Your task to perform on an android device: add a contact Image 0: 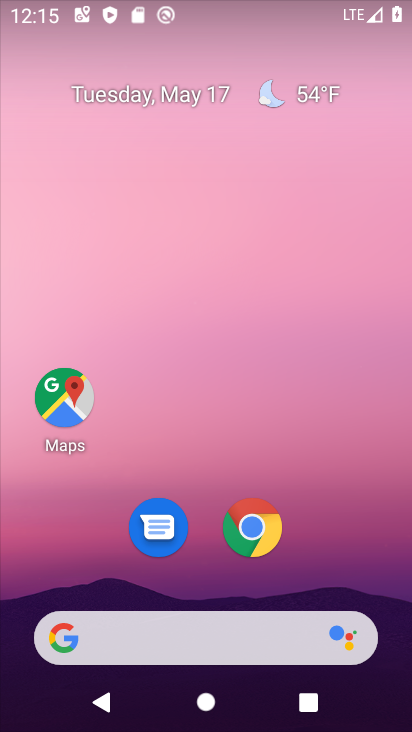
Step 0: press home button
Your task to perform on an android device: add a contact Image 1: 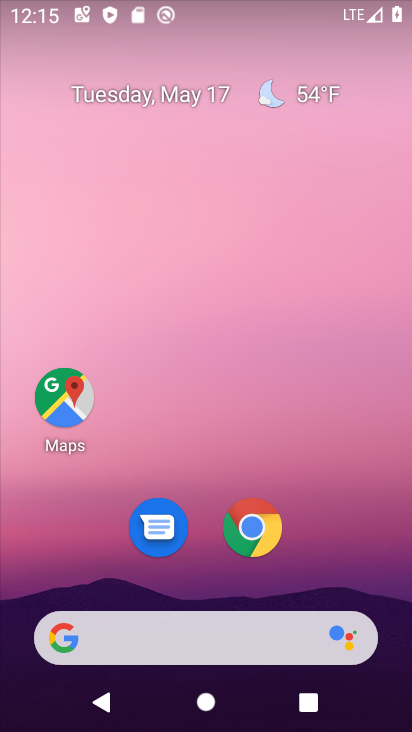
Step 1: drag from (266, 681) to (341, 192)
Your task to perform on an android device: add a contact Image 2: 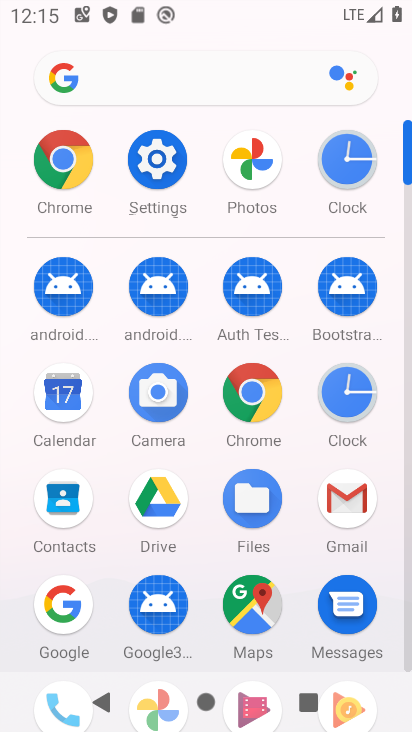
Step 2: drag from (107, 569) to (159, 394)
Your task to perform on an android device: add a contact Image 3: 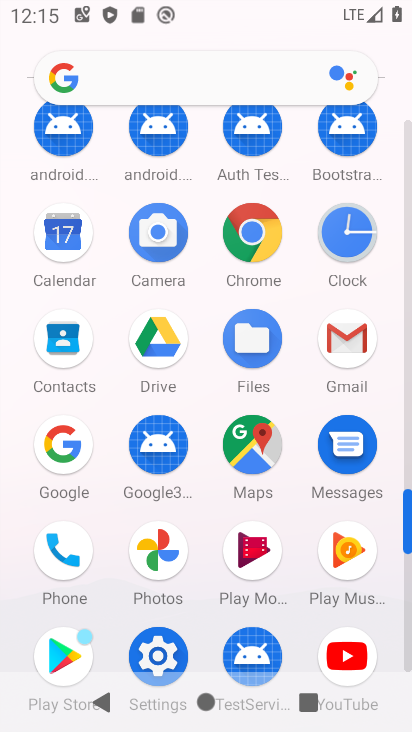
Step 3: click (58, 568)
Your task to perform on an android device: add a contact Image 4: 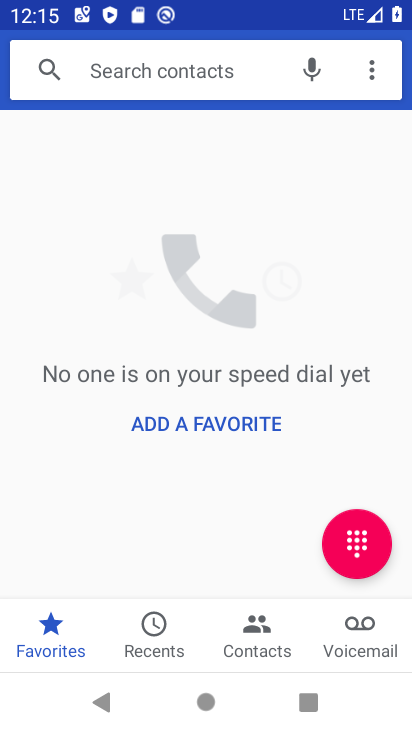
Step 4: click (261, 643)
Your task to perform on an android device: add a contact Image 5: 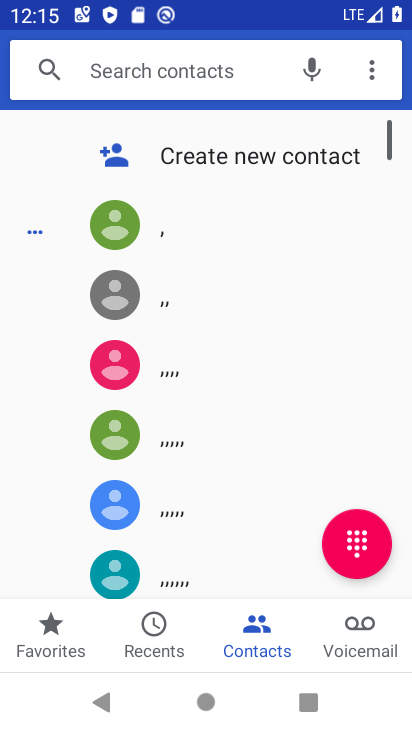
Step 5: click (242, 159)
Your task to perform on an android device: add a contact Image 6: 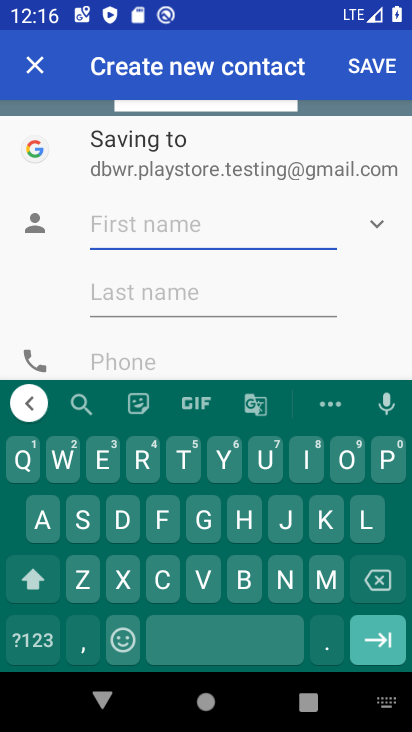
Step 6: click (209, 467)
Your task to perform on an android device: add a contact Image 7: 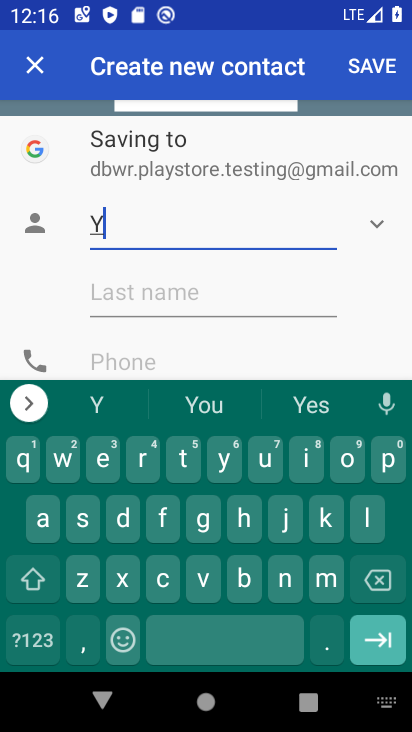
Step 7: click (210, 530)
Your task to perform on an android device: add a contact Image 8: 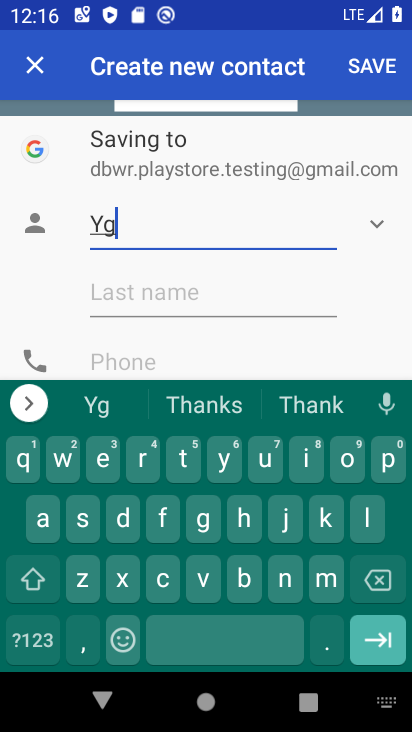
Step 8: click (255, 516)
Your task to perform on an android device: add a contact Image 9: 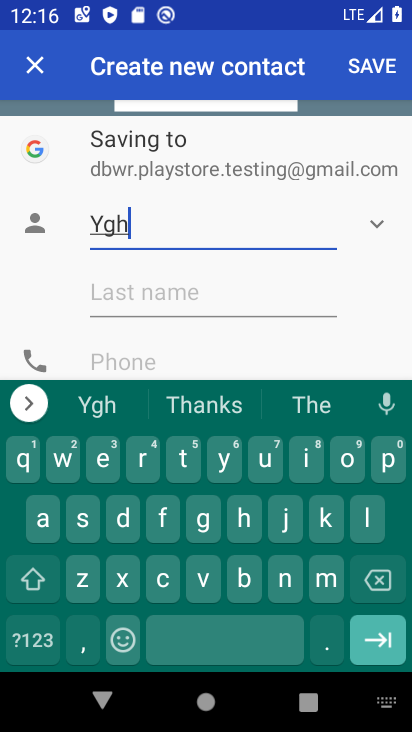
Step 9: click (159, 346)
Your task to perform on an android device: add a contact Image 10: 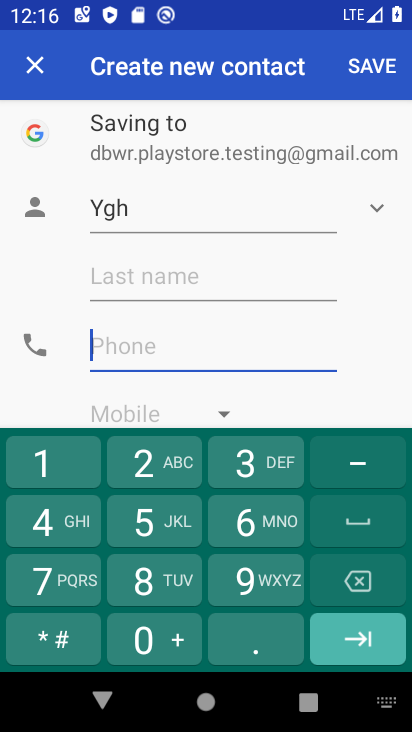
Step 10: click (168, 500)
Your task to perform on an android device: add a contact Image 11: 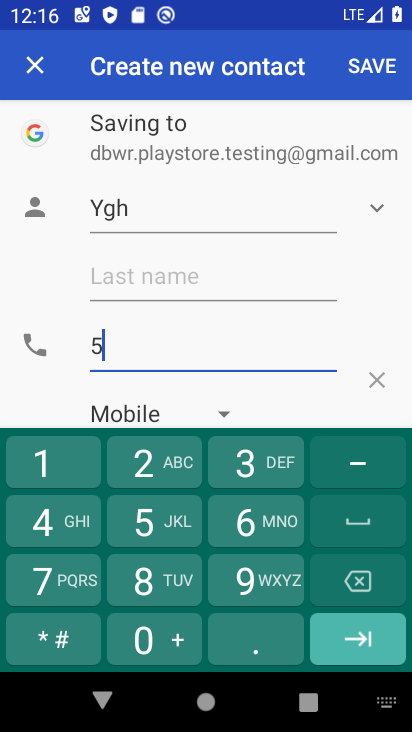
Step 11: click (111, 564)
Your task to perform on an android device: add a contact Image 12: 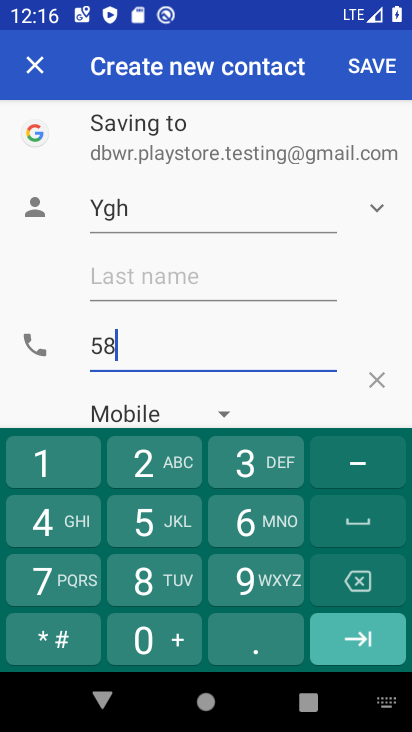
Step 12: click (69, 594)
Your task to perform on an android device: add a contact Image 13: 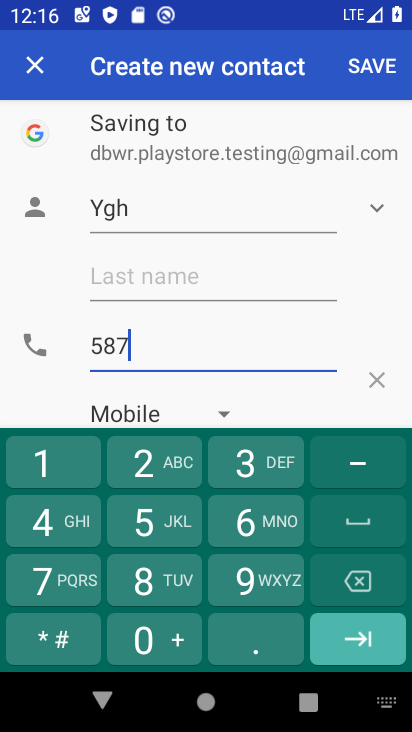
Step 13: click (179, 564)
Your task to perform on an android device: add a contact Image 14: 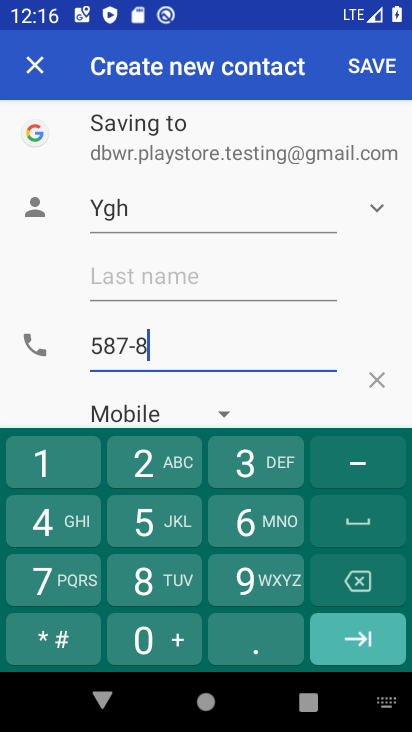
Step 14: click (239, 534)
Your task to perform on an android device: add a contact Image 15: 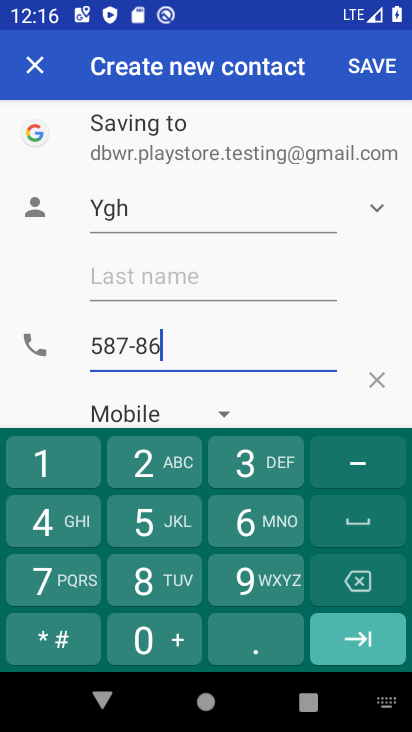
Step 15: click (174, 502)
Your task to perform on an android device: add a contact Image 16: 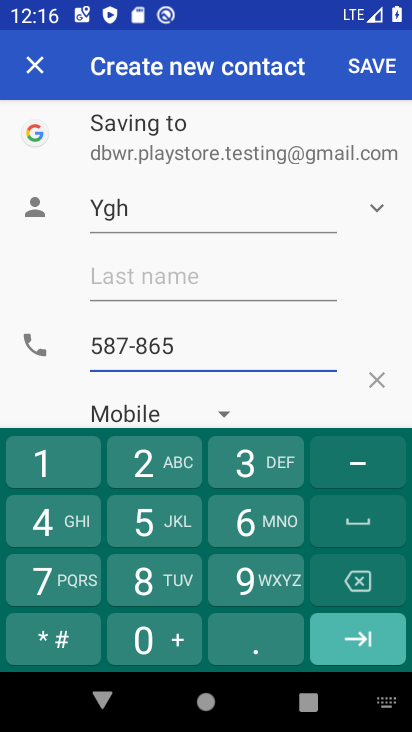
Step 16: click (368, 54)
Your task to perform on an android device: add a contact Image 17: 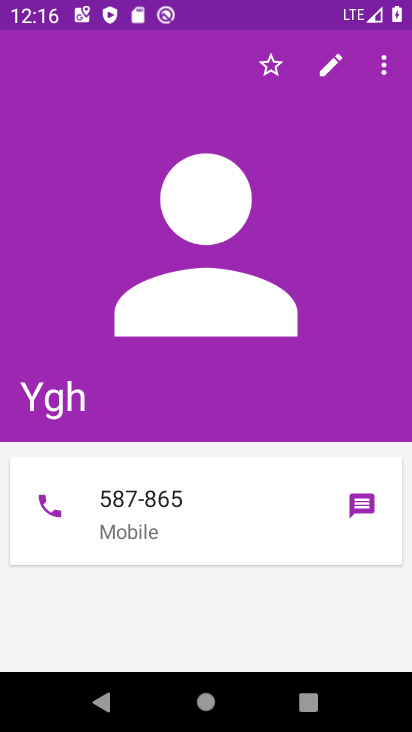
Step 17: task complete